Your task to perform on an android device: Go to notification settings Image 0: 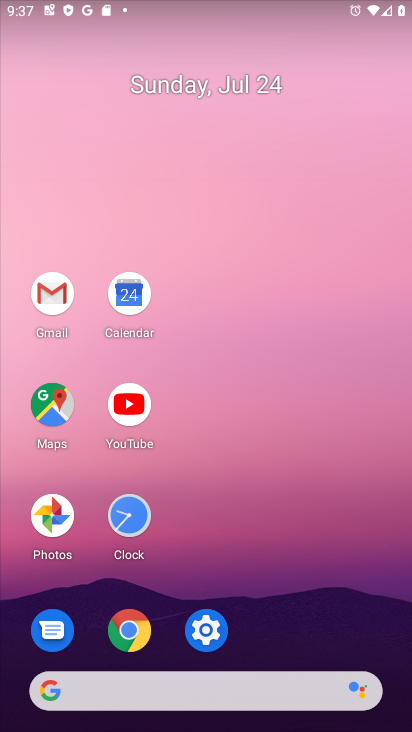
Step 0: click (203, 630)
Your task to perform on an android device: Go to notification settings Image 1: 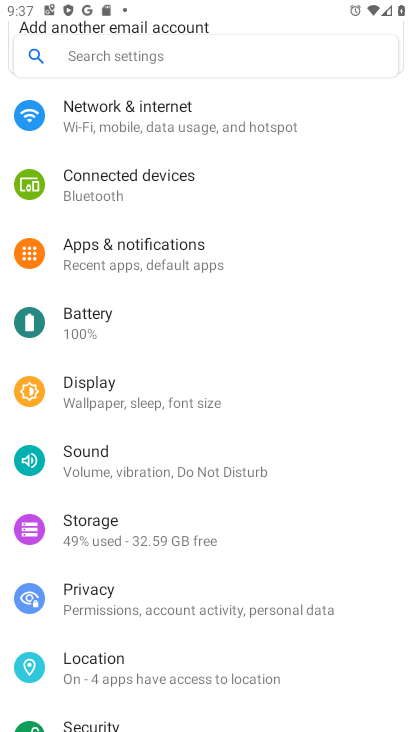
Step 1: click (131, 242)
Your task to perform on an android device: Go to notification settings Image 2: 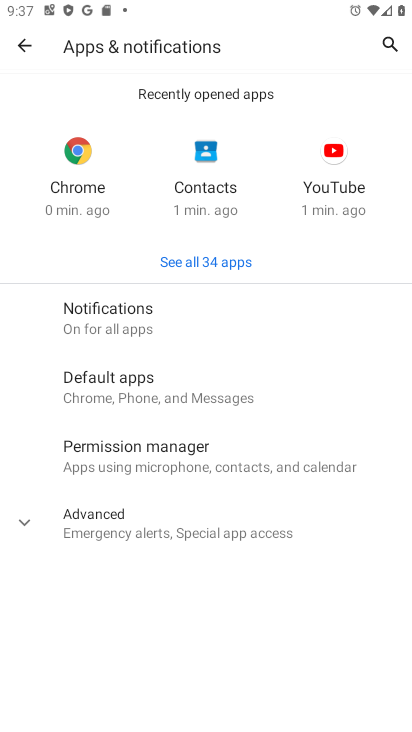
Step 2: task complete